Your task to perform on an android device: Go to privacy settings Image 0: 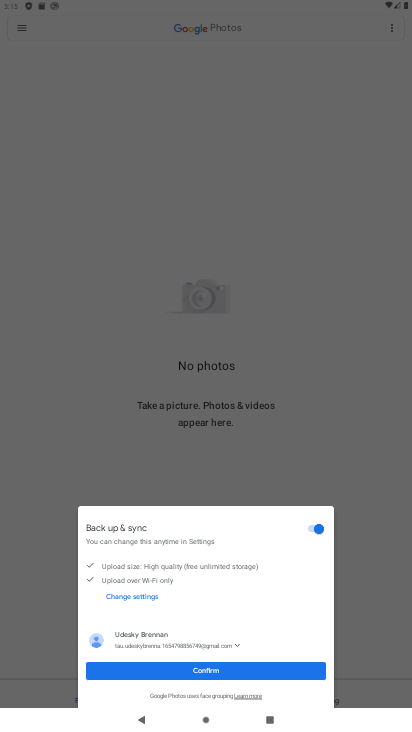
Step 0: press home button
Your task to perform on an android device: Go to privacy settings Image 1: 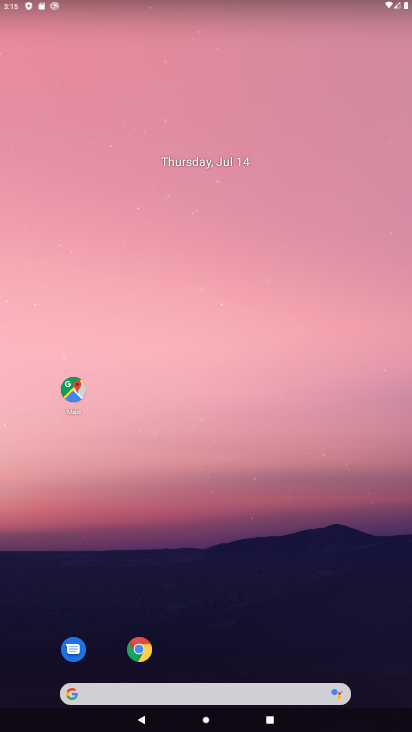
Step 1: drag from (180, 692) to (128, 196)
Your task to perform on an android device: Go to privacy settings Image 2: 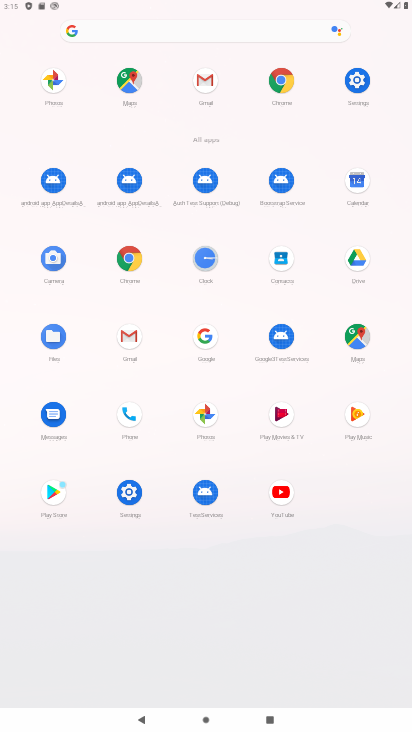
Step 2: click (363, 67)
Your task to perform on an android device: Go to privacy settings Image 3: 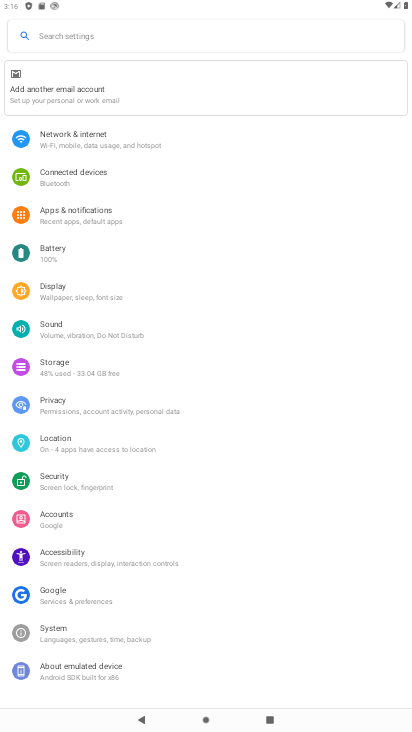
Step 3: click (42, 395)
Your task to perform on an android device: Go to privacy settings Image 4: 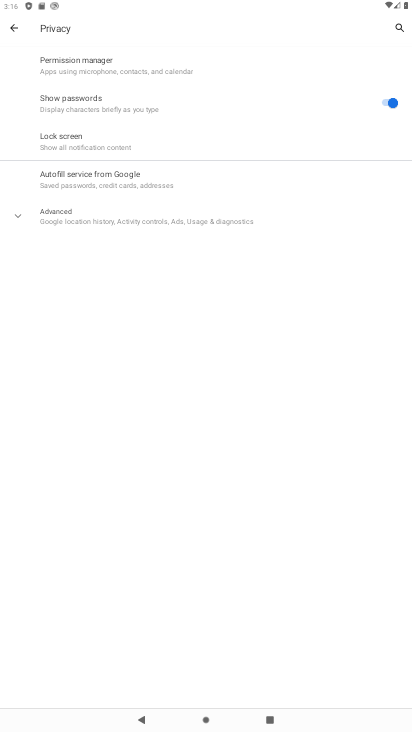
Step 4: task complete